Your task to perform on an android device: turn off location Image 0: 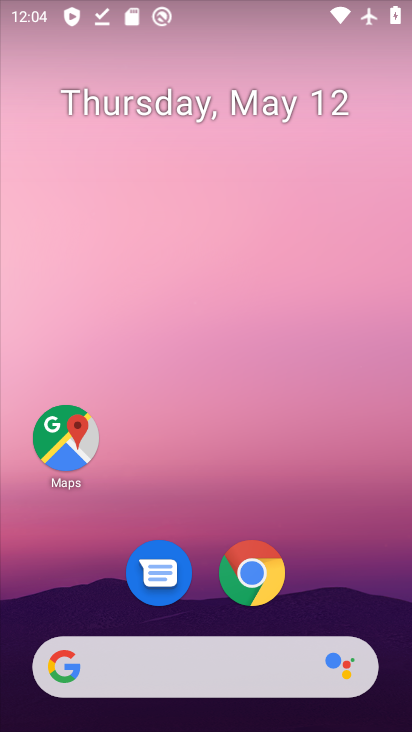
Step 0: drag from (339, 527) to (319, 136)
Your task to perform on an android device: turn off location Image 1: 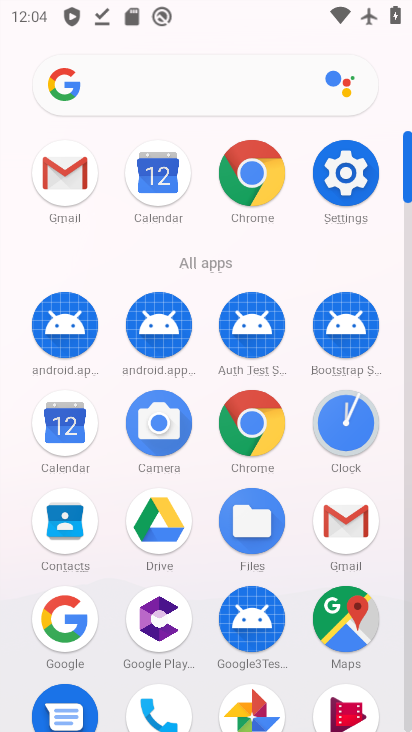
Step 1: click (359, 175)
Your task to perform on an android device: turn off location Image 2: 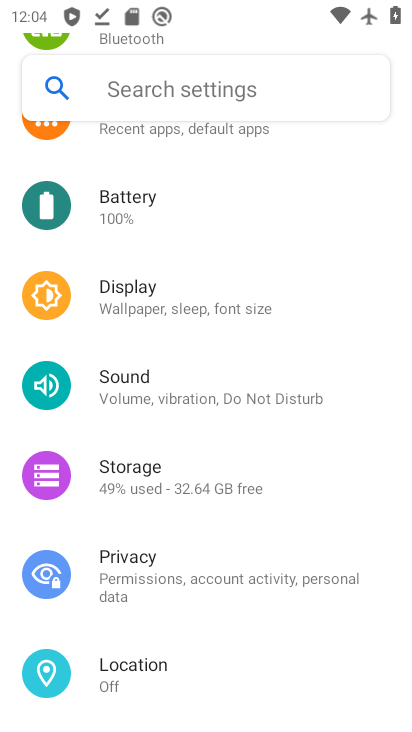
Step 2: click (141, 682)
Your task to perform on an android device: turn off location Image 3: 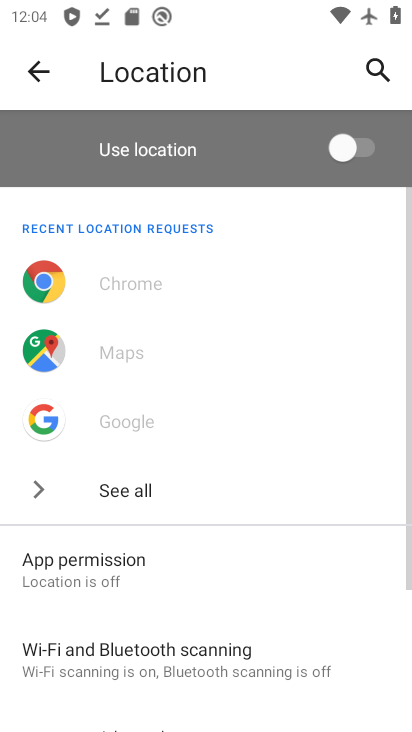
Step 3: task complete